Your task to perform on an android device: delete location history Image 0: 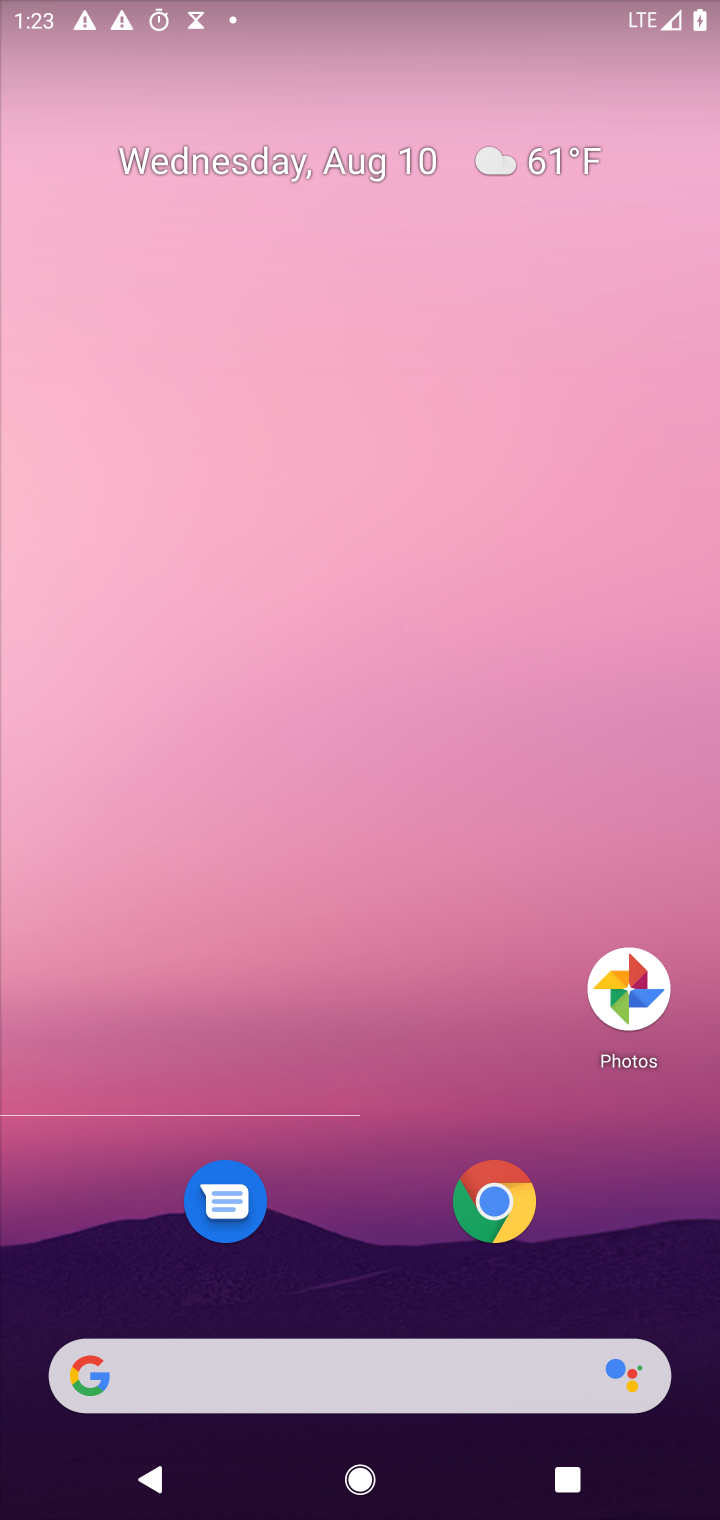
Step 0: press home button
Your task to perform on an android device: delete location history Image 1: 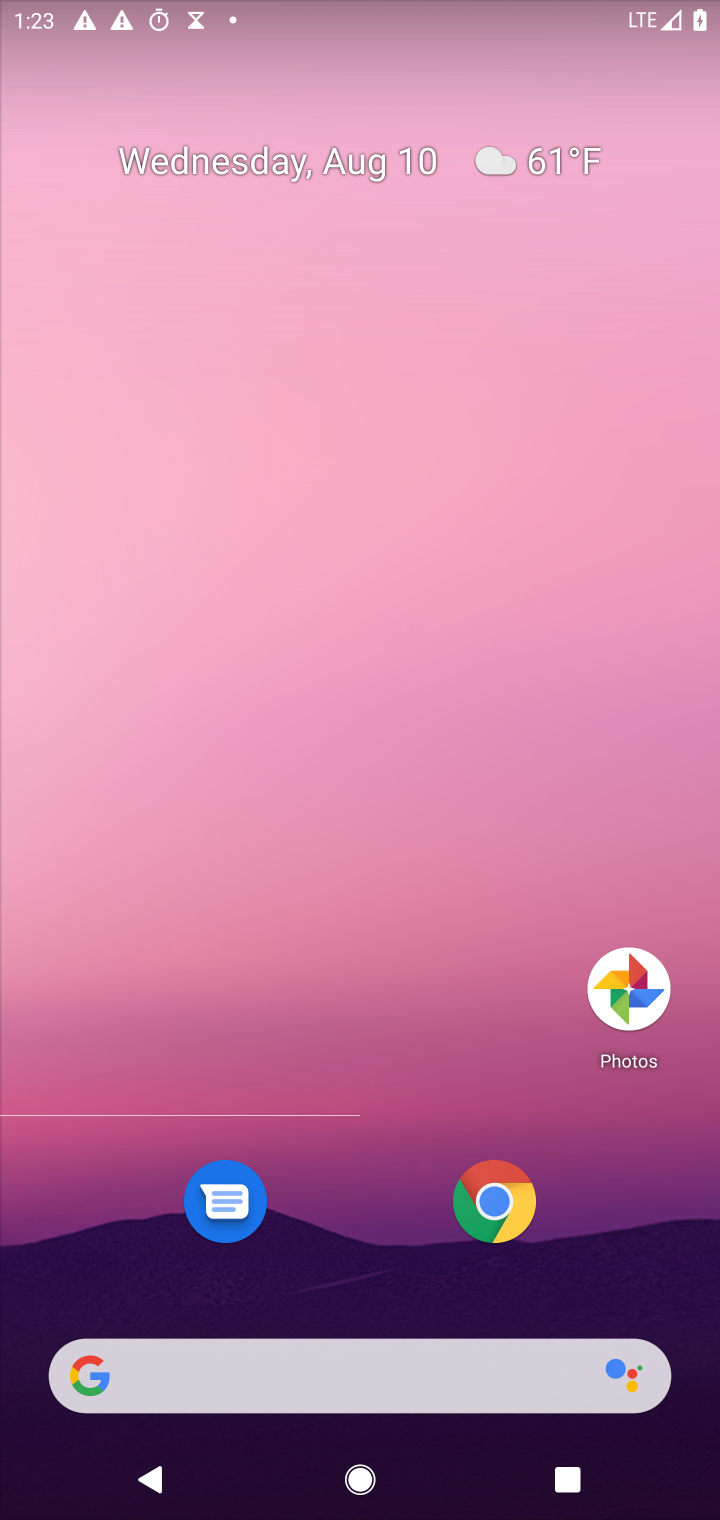
Step 1: drag from (375, 1133) to (410, 3)
Your task to perform on an android device: delete location history Image 2: 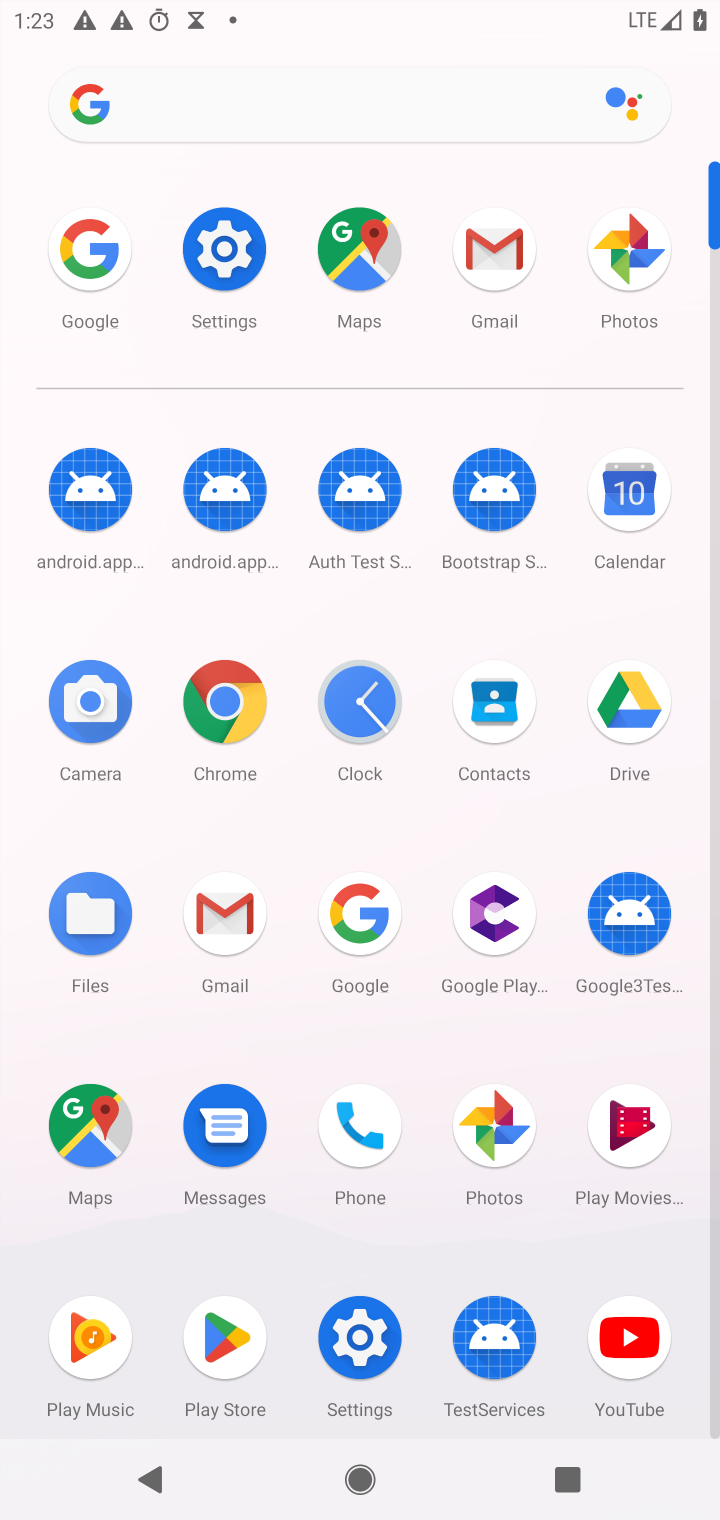
Step 2: click (226, 243)
Your task to perform on an android device: delete location history Image 3: 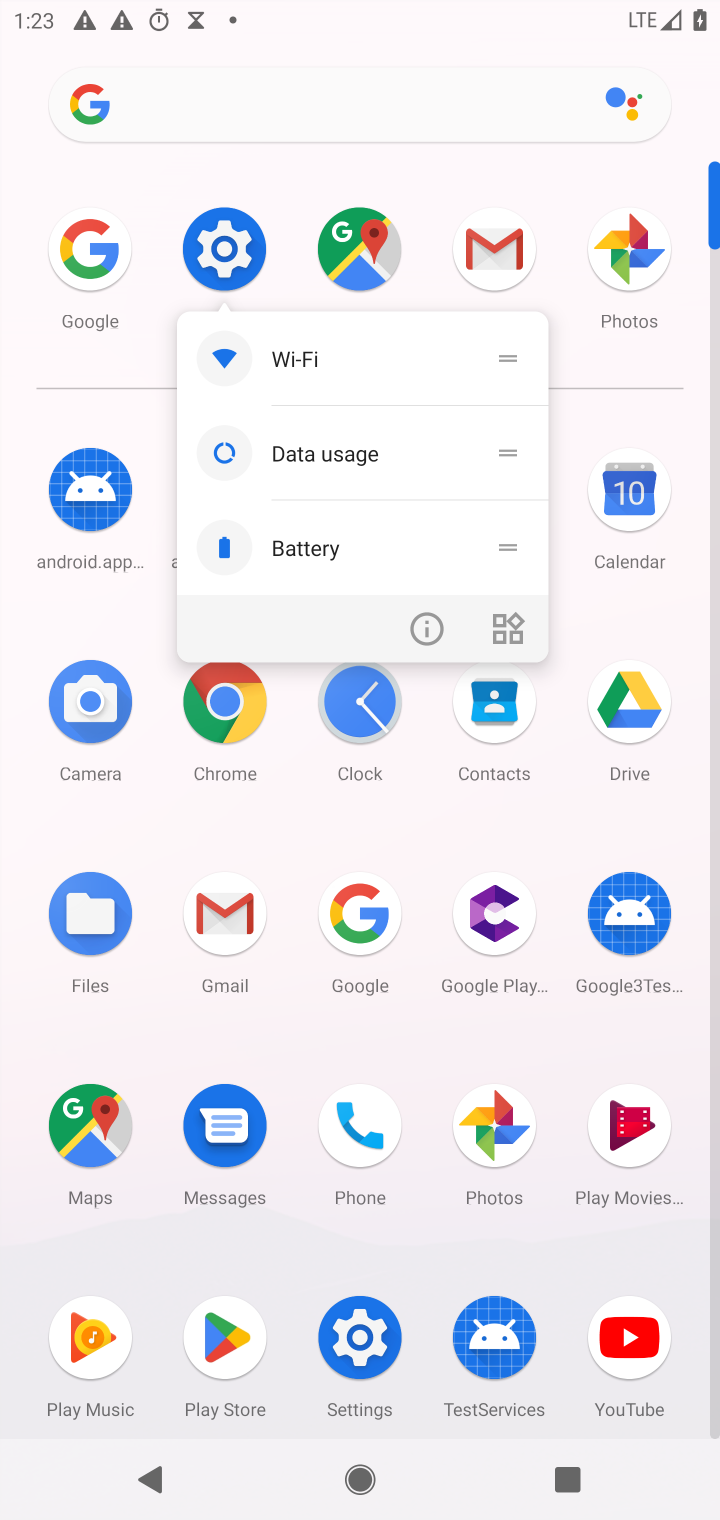
Step 3: click (226, 243)
Your task to perform on an android device: delete location history Image 4: 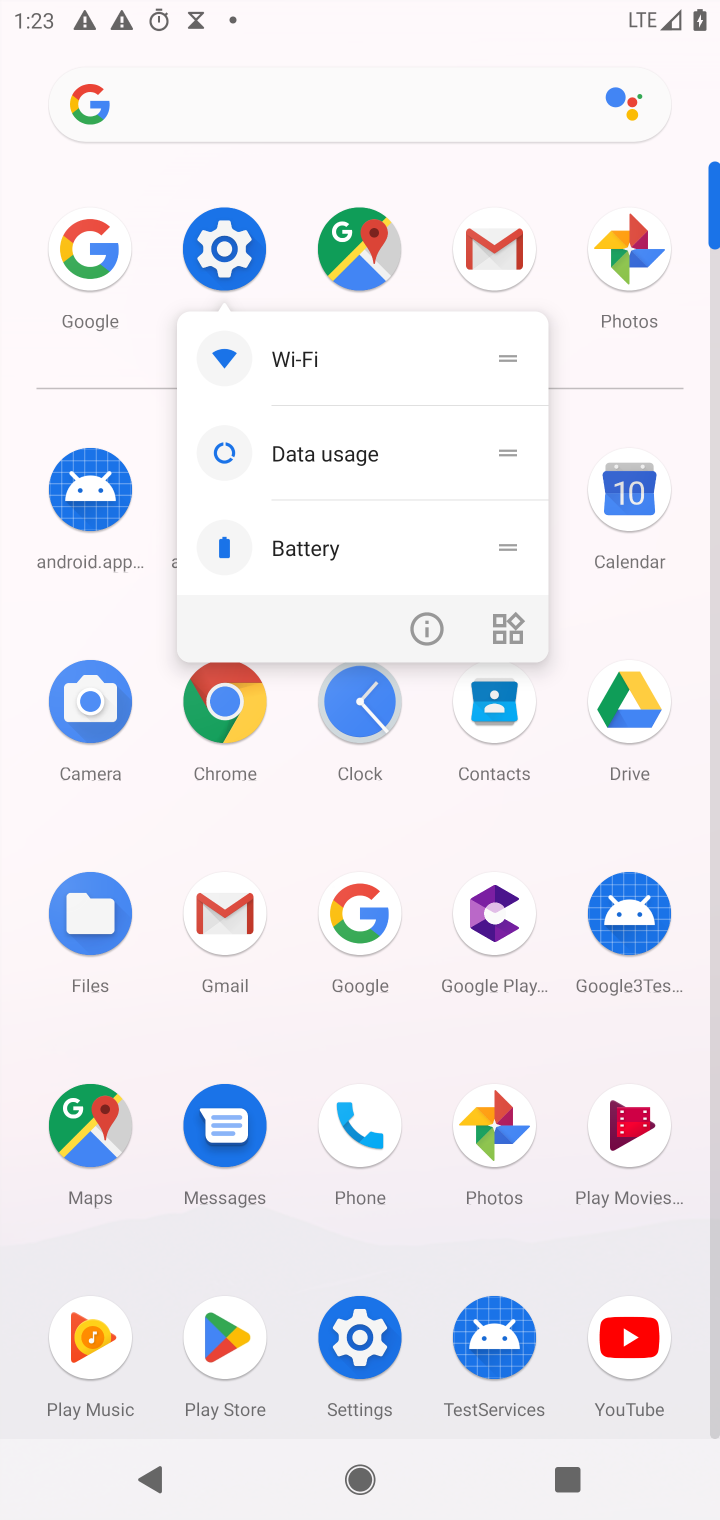
Step 4: click (216, 239)
Your task to perform on an android device: delete location history Image 5: 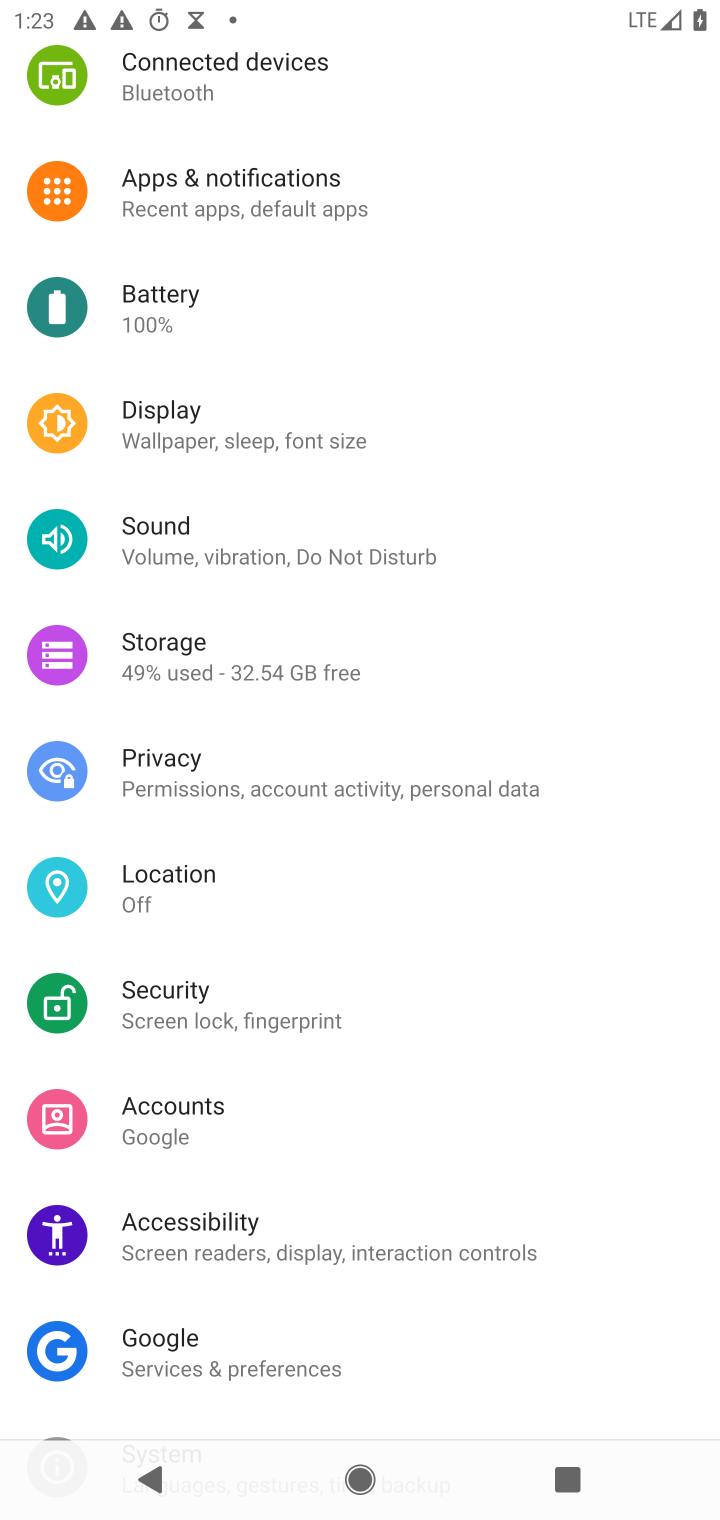
Step 5: drag from (147, 356) to (155, 706)
Your task to perform on an android device: delete location history Image 6: 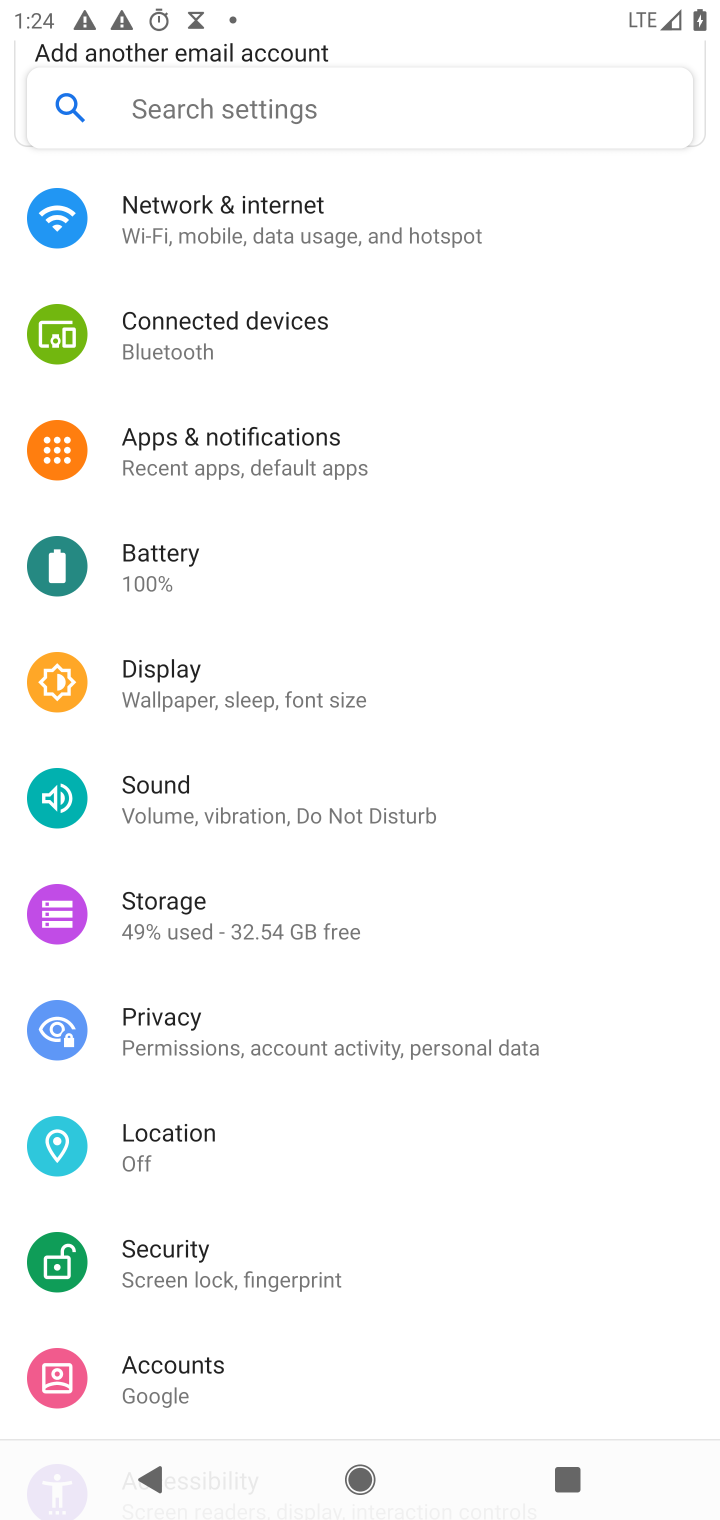
Step 6: click (175, 1167)
Your task to perform on an android device: delete location history Image 7: 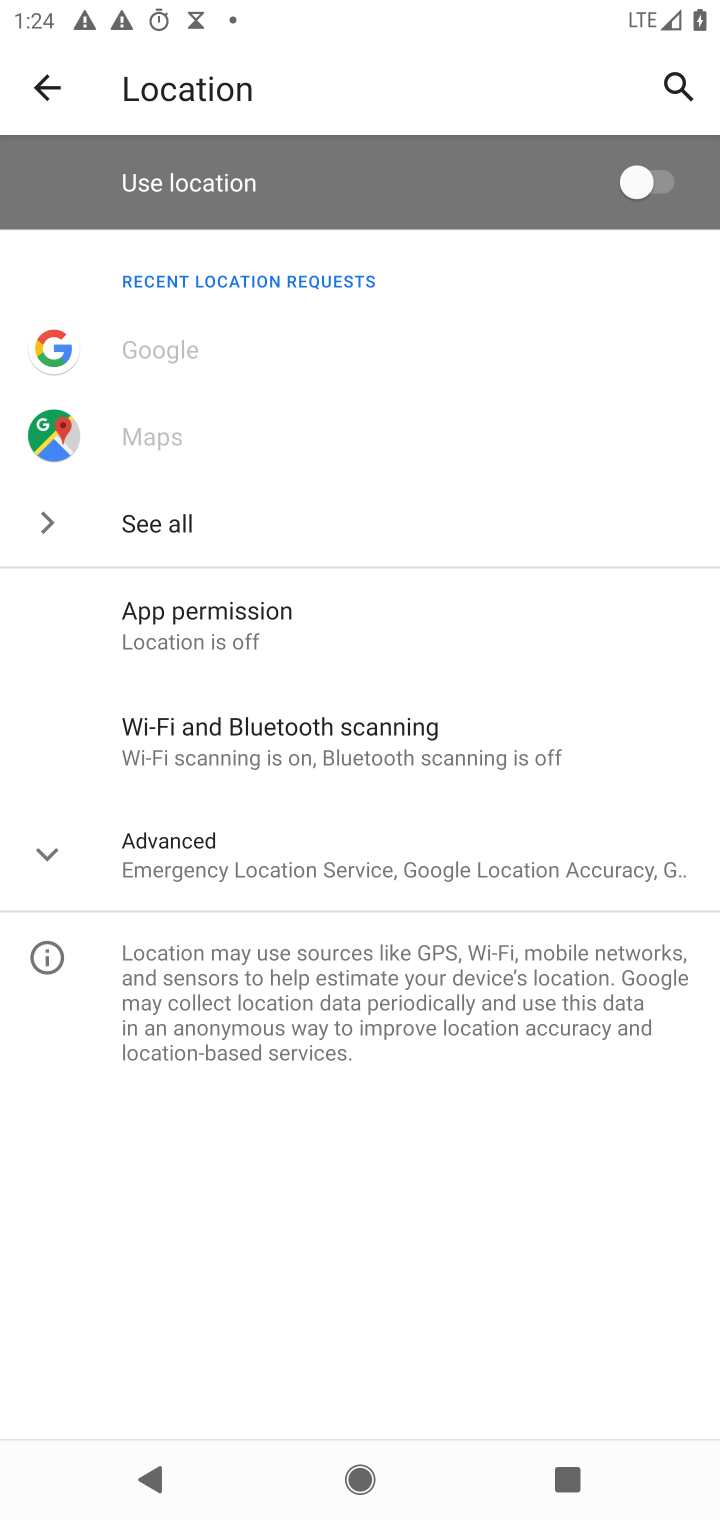
Step 7: click (56, 854)
Your task to perform on an android device: delete location history Image 8: 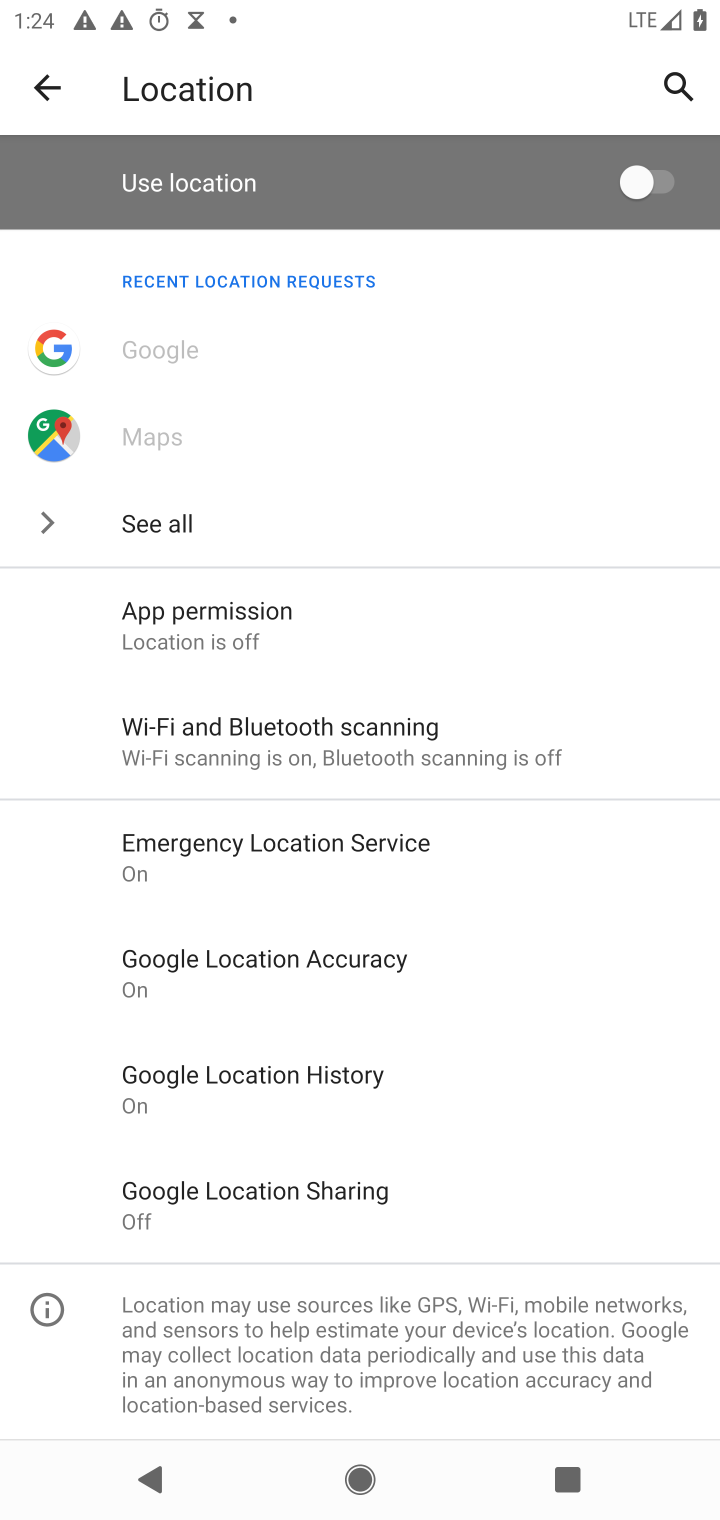
Step 8: click (171, 1091)
Your task to perform on an android device: delete location history Image 9: 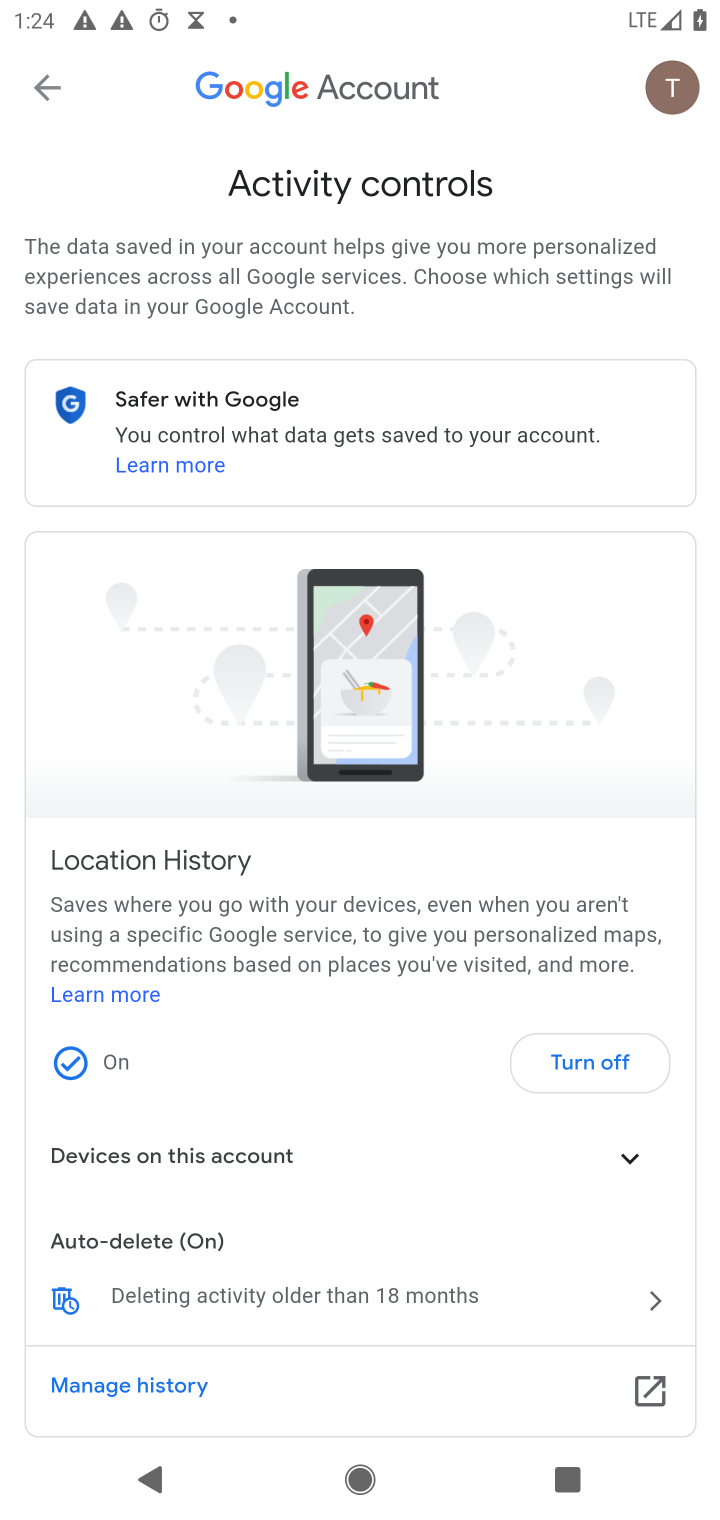
Step 9: click (62, 1300)
Your task to perform on an android device: delete location history Image 10: 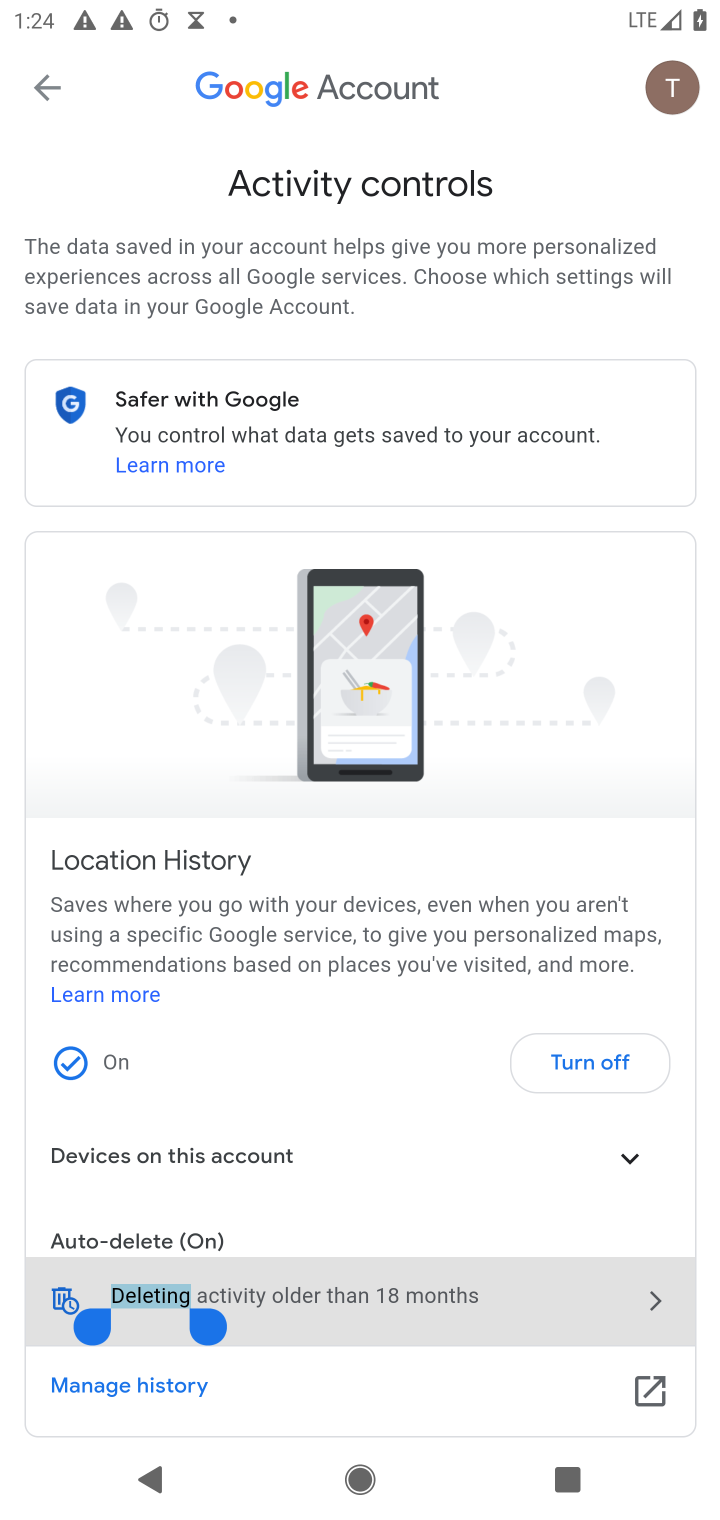
Step 10: click (68, 1299)
Your task to perform on an android device: delete location history Image 11: 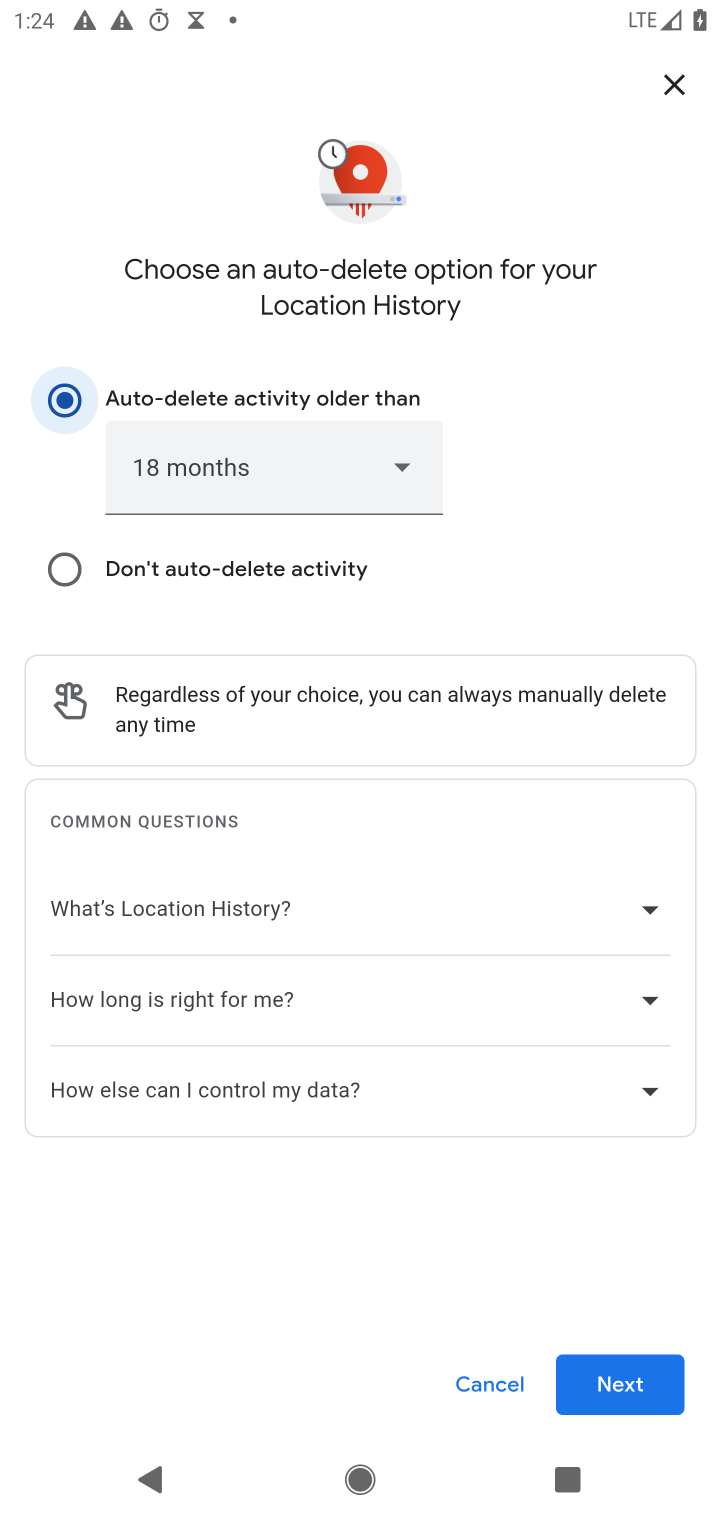
Step 11: click (626, 1385)
Your task to perform on an android device: delete location history Image 12: 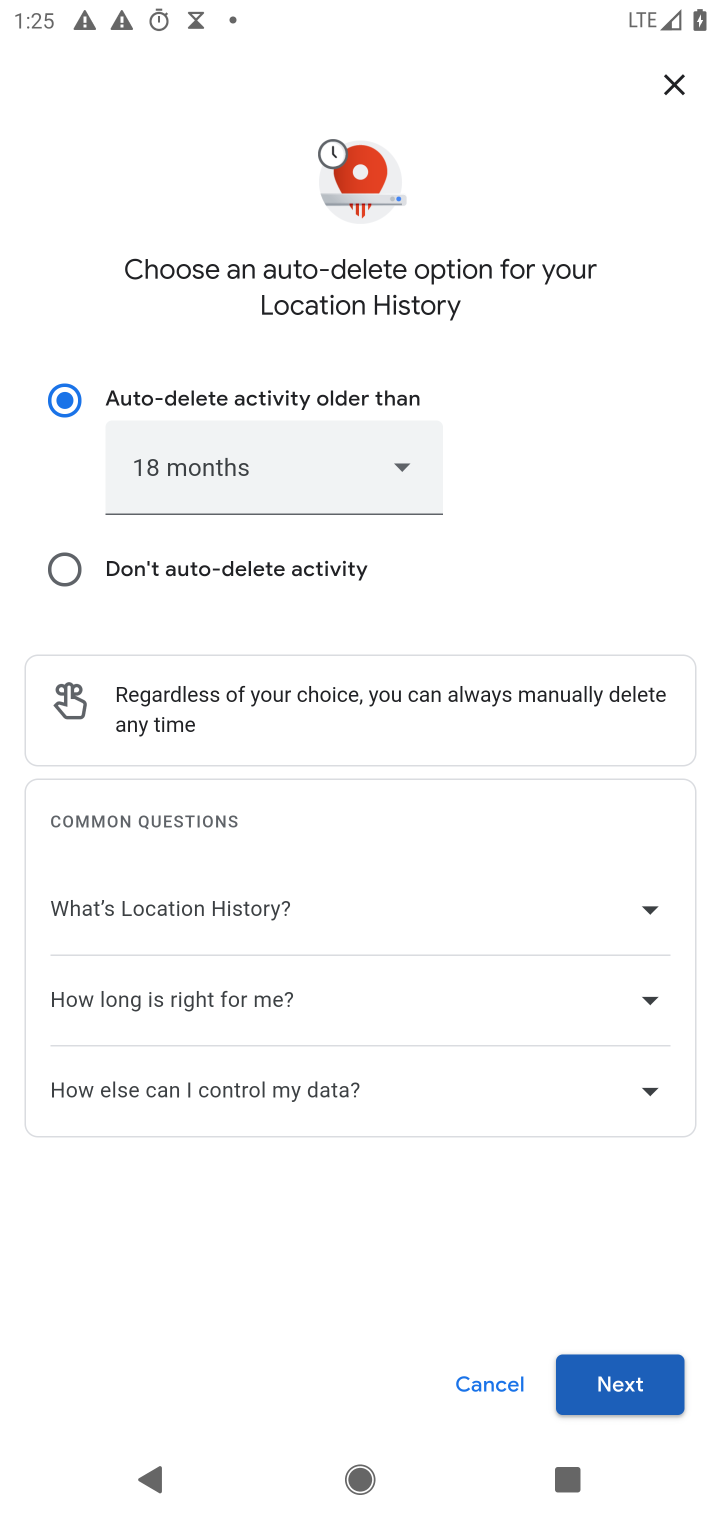
Step 12: click (656, 1385)
Your task to perform on an android device: delete location history Image 13: 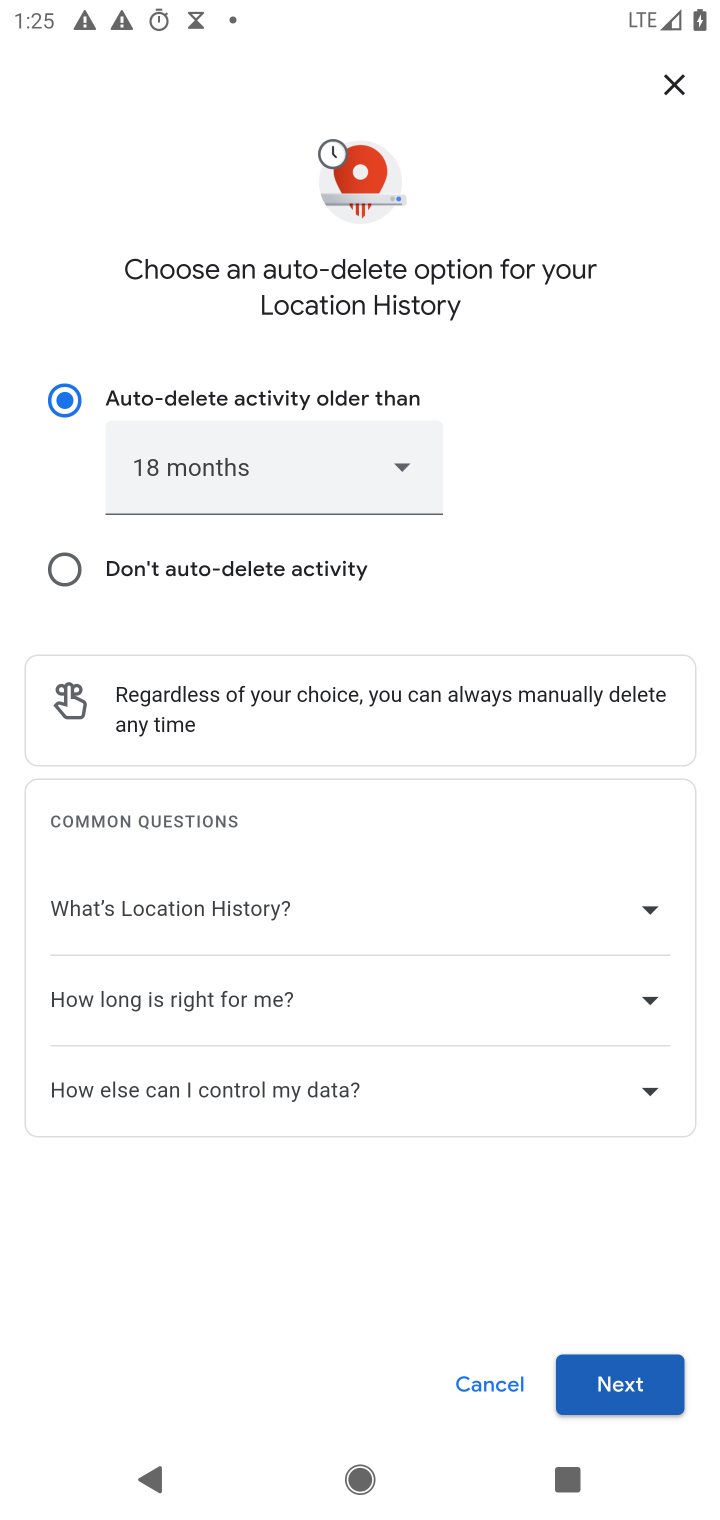
Step 13: click (621, 1379)
Your task to perform on an android device: delete location history Image 14: 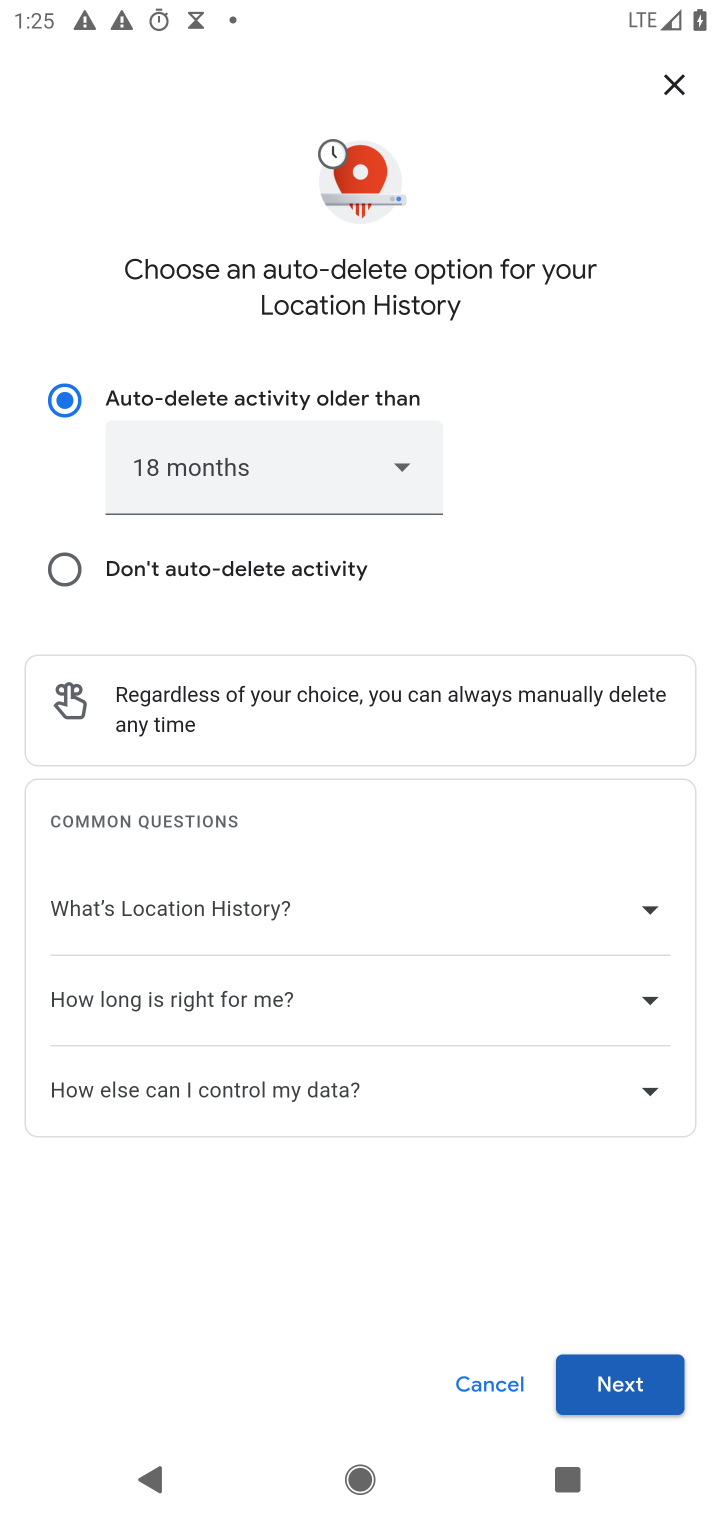
Step 14: click (627, 1397)
Your task to perform on an android device: delete location history Image 15: 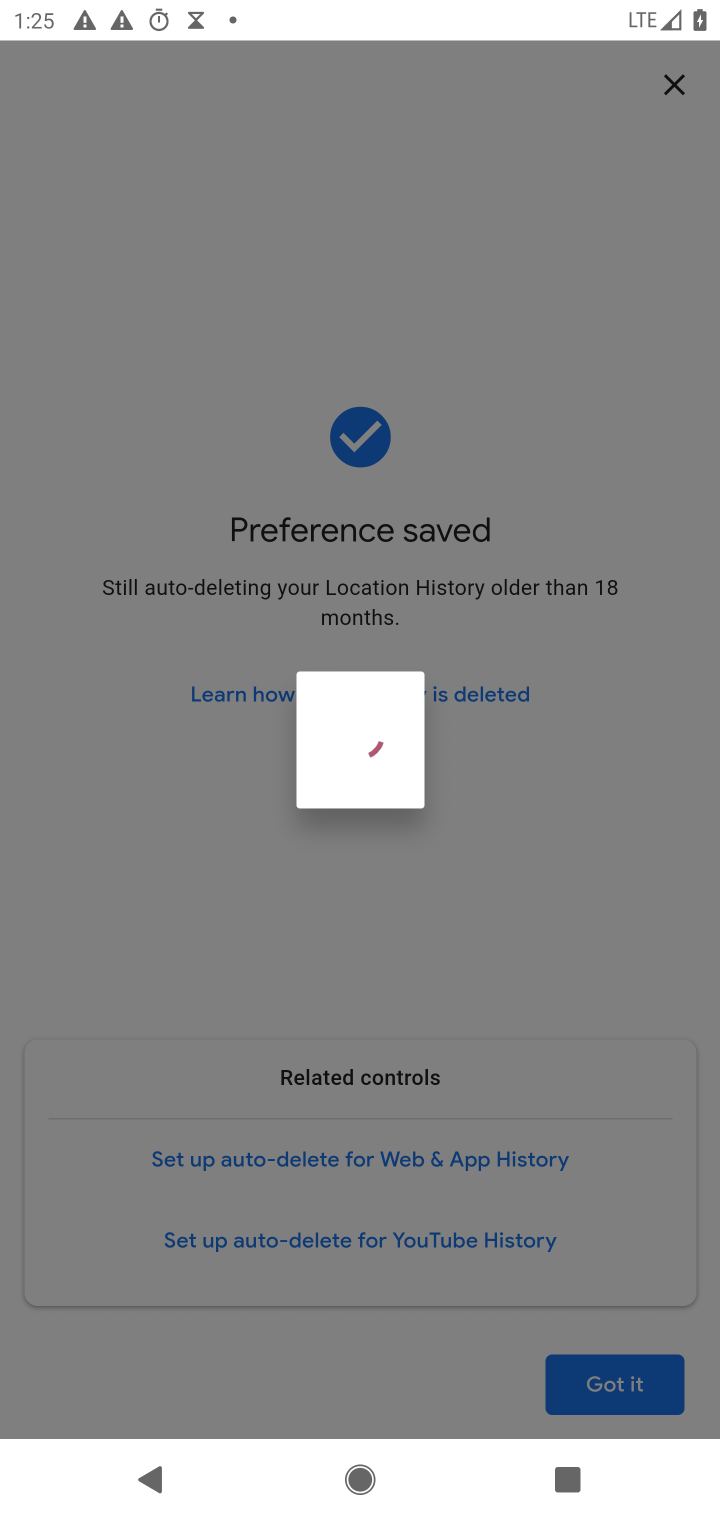
Step 15: click (626, 1384)
Your task to perform on an android device: delete location history Image 16: 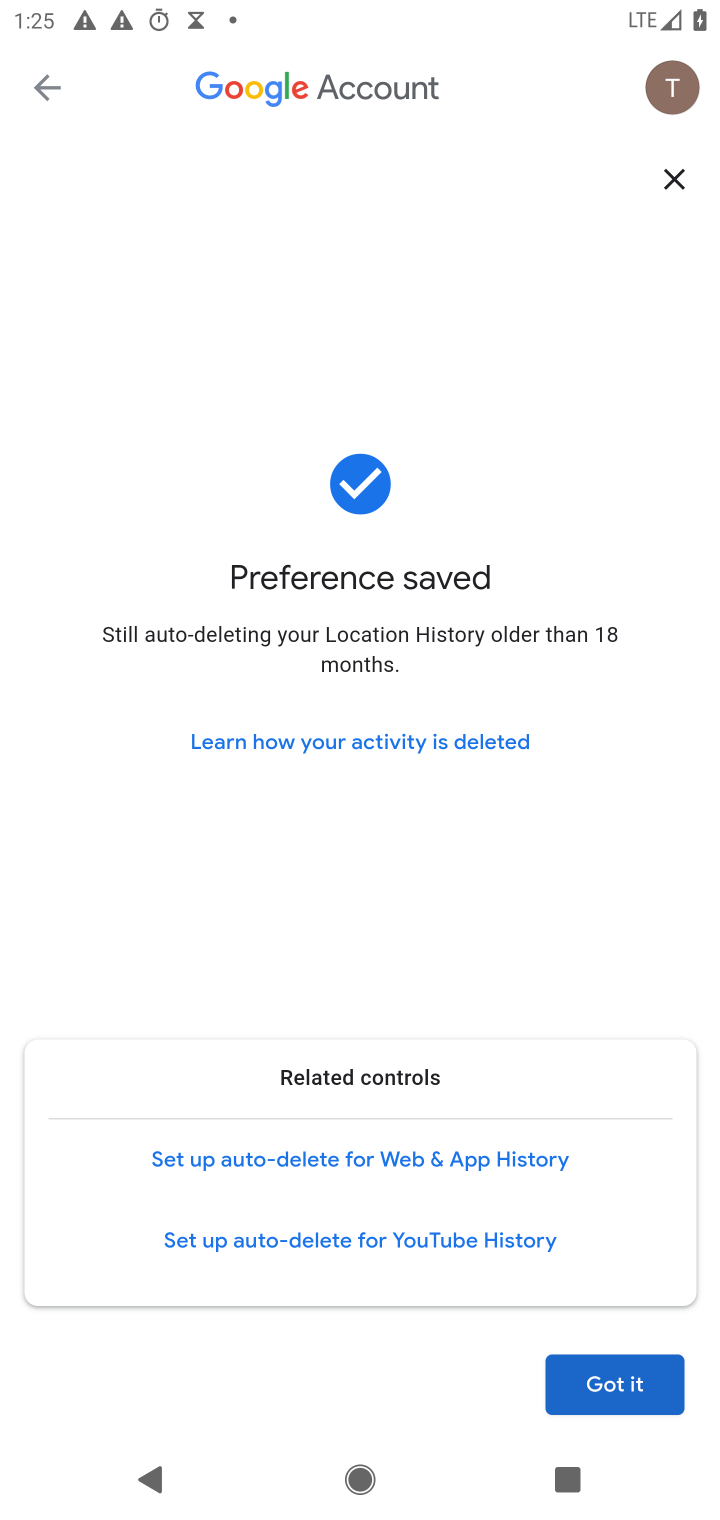
Step 16: click (626, 1381)
Your task to perform on an android device: delete location history Image 17: 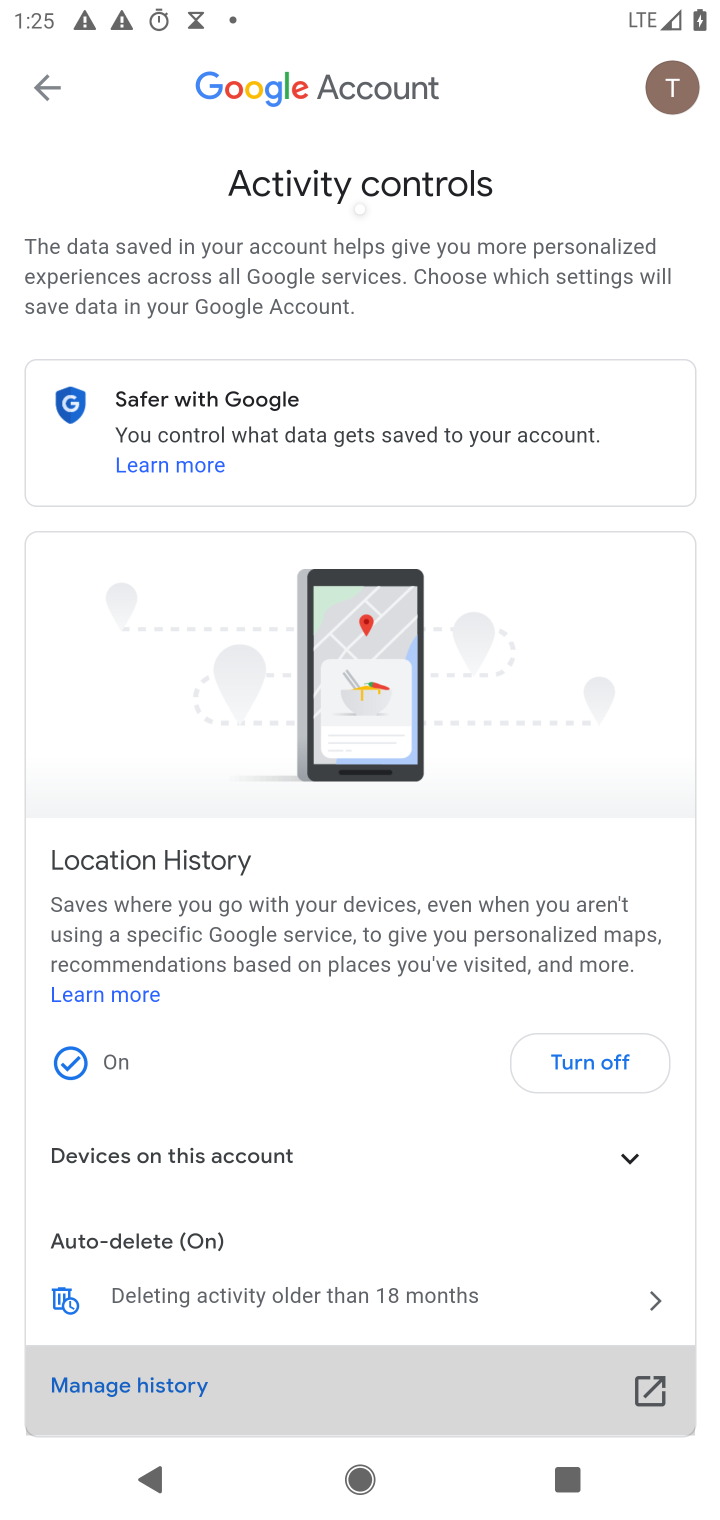
Step 17: task complete